Your task to perform on an android device: Show me recent news Image 0: 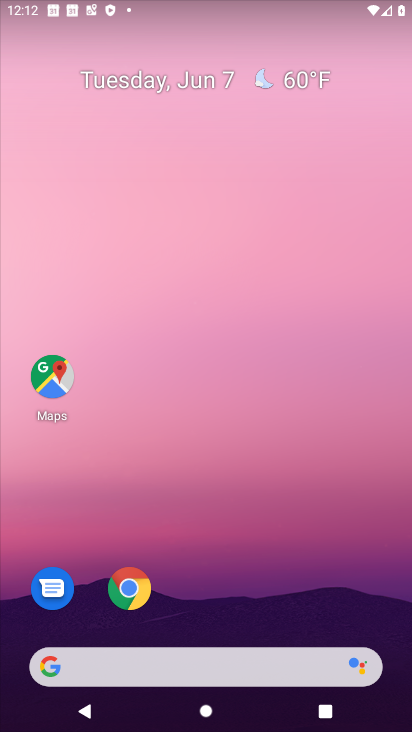
Step 0: click (130, 681)
Your task to perform on an android device: Show me recent news Image 1: 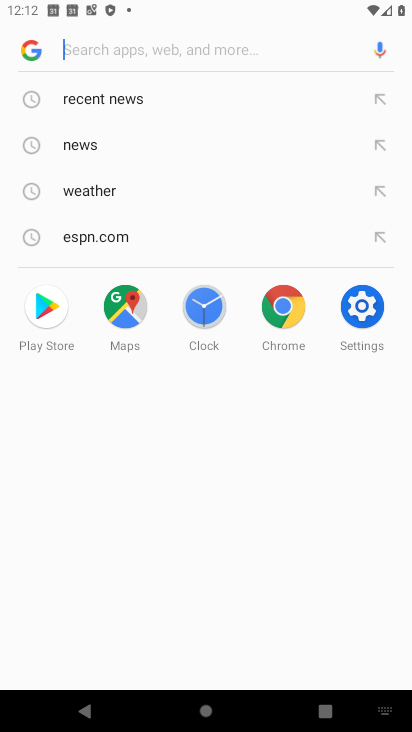
Step 1: click (205, 86)
Your task to perform on an android device: Show me recent news Image 2: 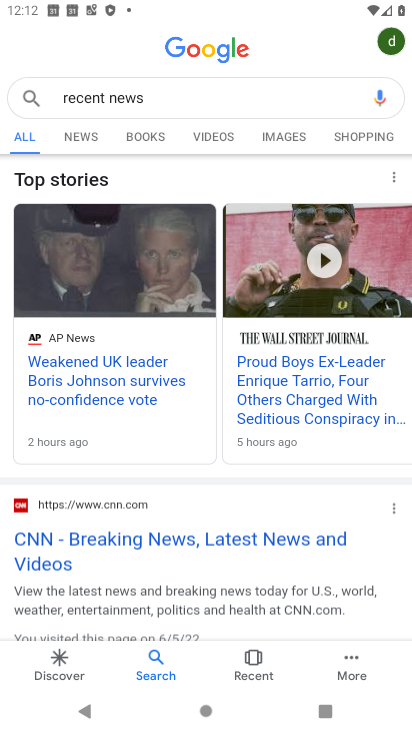
Step 2: task complete